Your task to perform on an android device: turn off data saver in the chrome app Image 0: 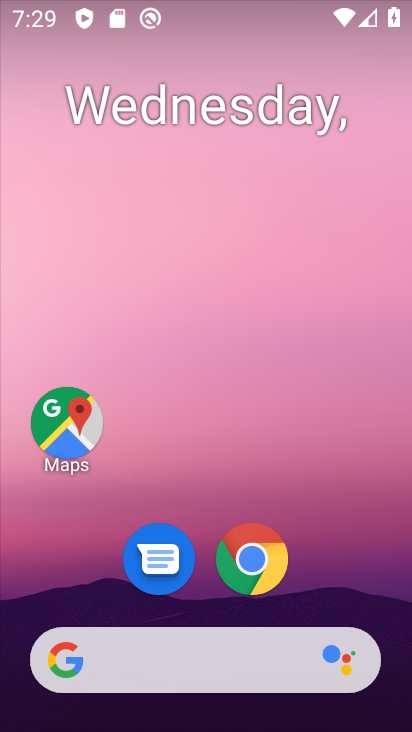
Step 0: click (251, 571)
Your task to perform on an android device: turn off data saver in the chrome app Image 1: 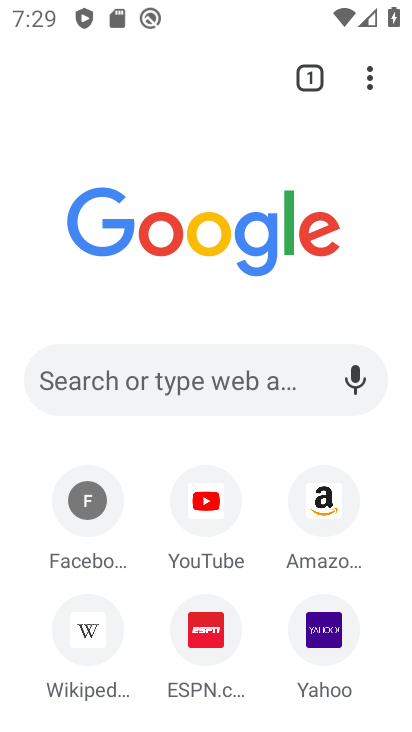
Step 1: click (364, 81)
Your task to perform on an android device: turn off data saver in the chrome app Image 2: 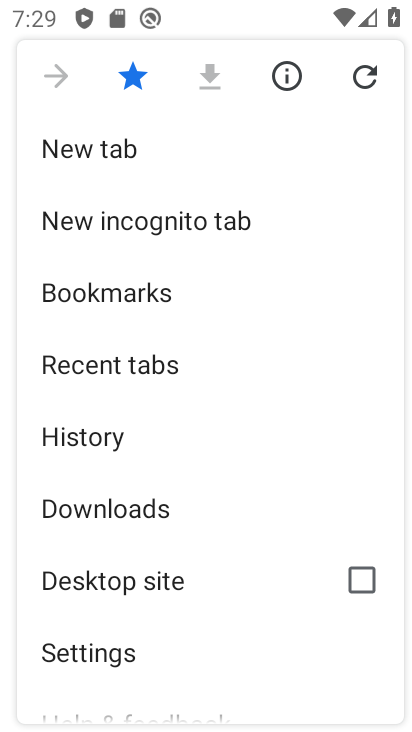
Step 2: drag from (158, 532) to (161, 413)
Your task to perform on an android device: turn off data saver in the chrome app Image 3: 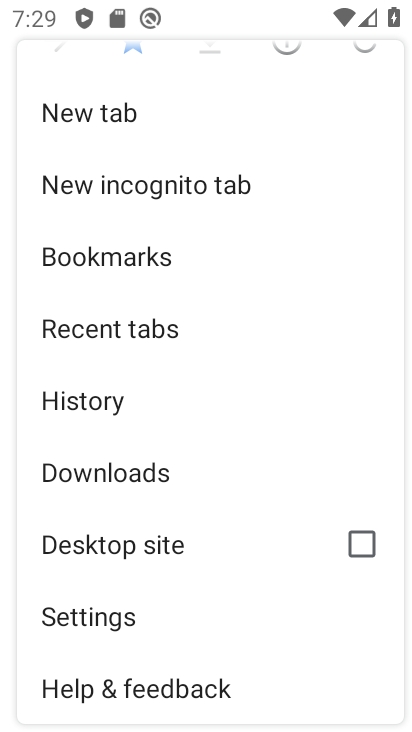
Step 3: click (71, 593)
Your task to perform on an android device: turn off data saver in the chrome app Image 4: 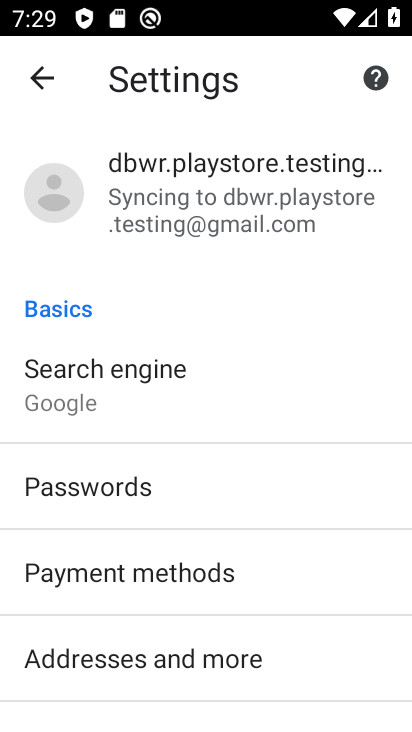
Step 4: drag from (71, 593) to (76, 62)
Your task to perform on an android device: turn off data saver in the chrome app Image 5: 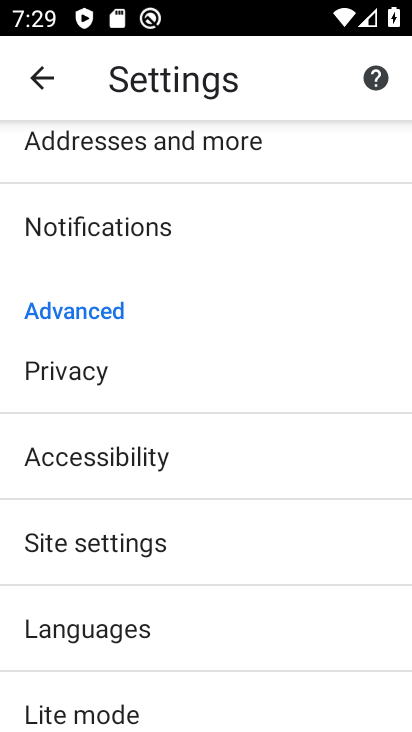
Step 5: click (51, 688)
Your task to perform on an android device: turn off data saver in the chrome app Image 6: 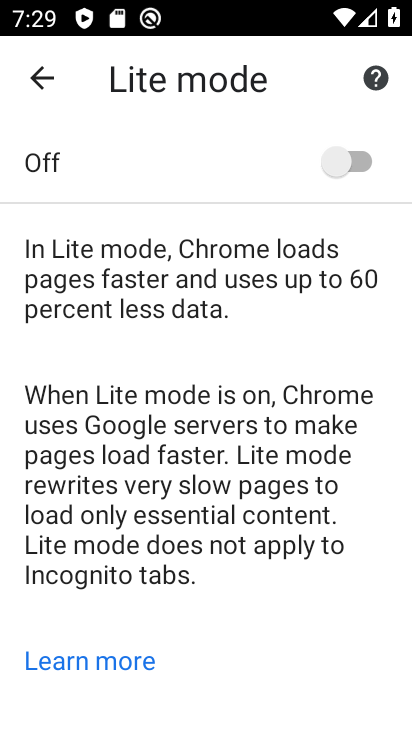
Step 6: task complete